Your task to perform on an android device: choose inbox layout in the gmail app Image 0: 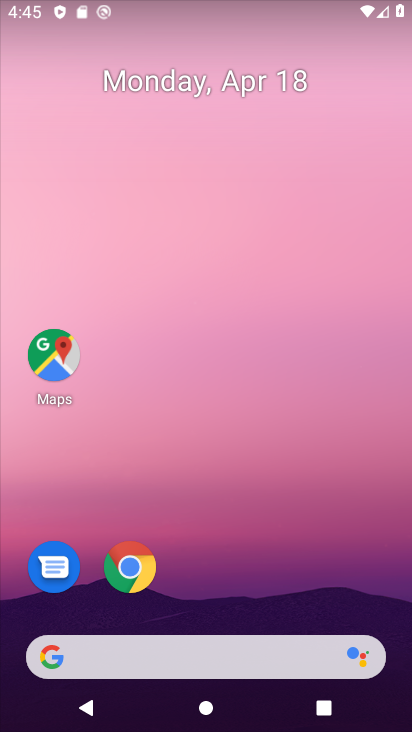
Step 0: drag from (209, 662) to (255, 250)
Your task to perform on an android device: choose inbox layout in the gmail app Image 1: 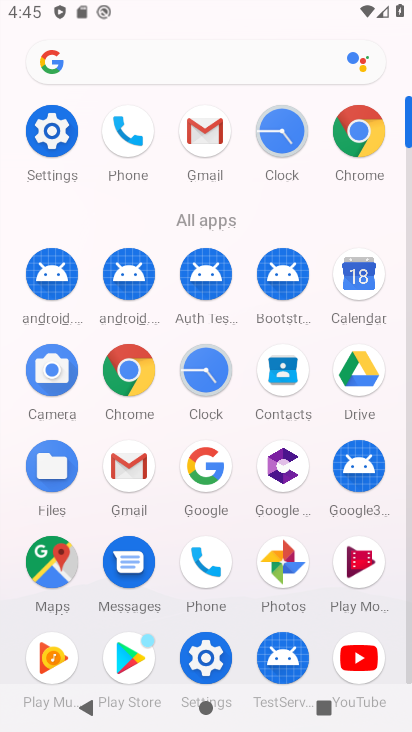
Step 1: click (187, 133)
Your task to perform on an android device: choose inbox layout in the gmail app Image 2: 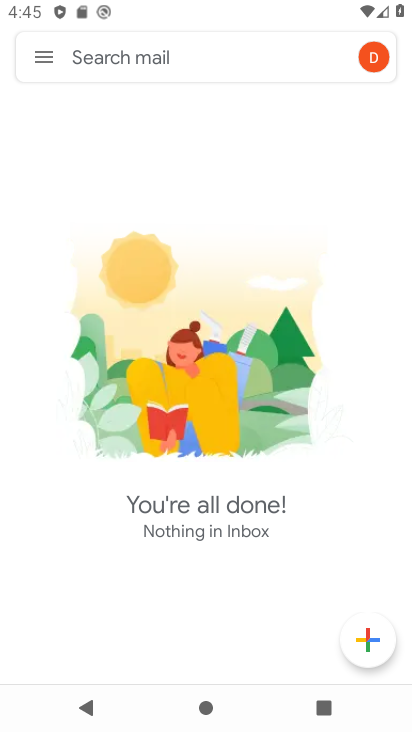
Step 2: click (29, 43)
Your task to perform on an android device: choose inbox layout in the gmail app Image 3: 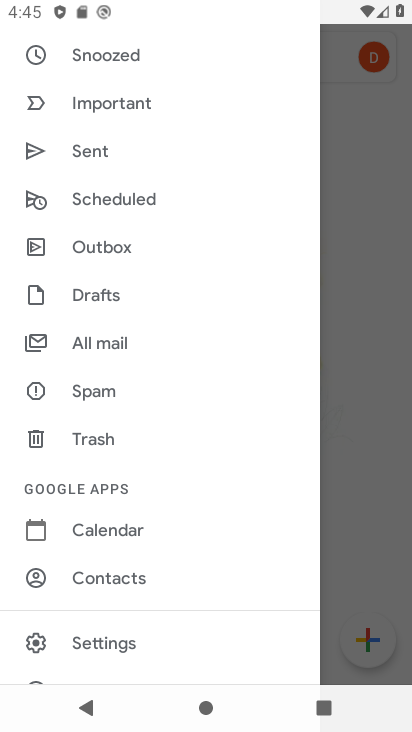
Step 3: click (104, 637)
Your task to perform on an android device: choose inbox layout in the gmail app Image 4: 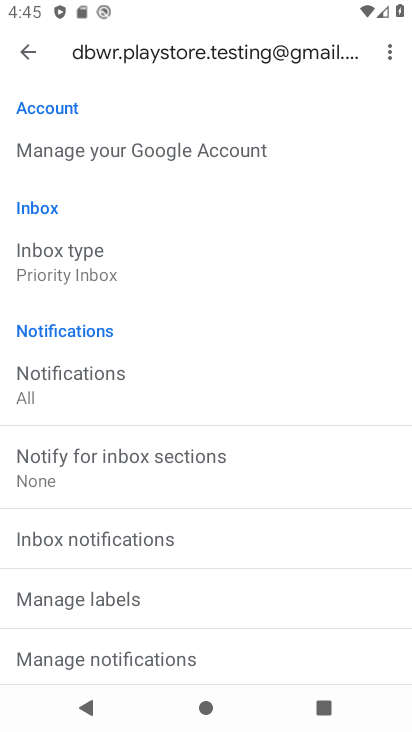
Step 4: click (79, 256)
Your task to perform on an android device: choose inbox layout in the gmail app Image 5: 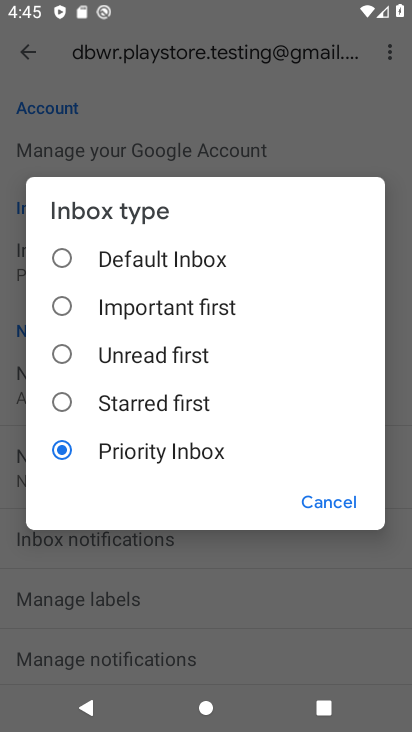
Step 5: task complete